Your task to perform on an android device: change notifications settings Image 0: 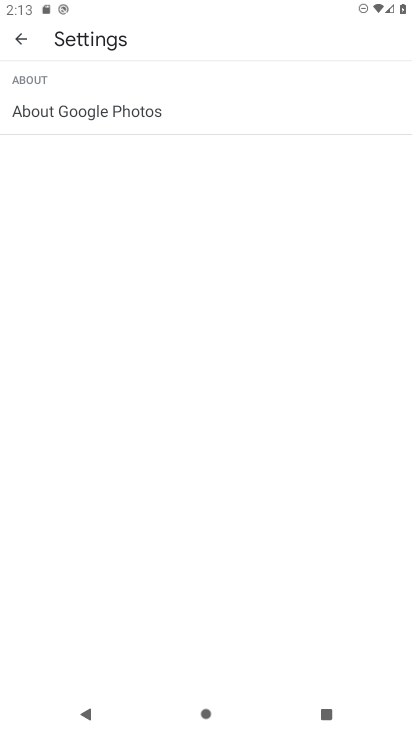
Step 0: press home button
Your task to perform on an android device: change notifications settings Image 1: 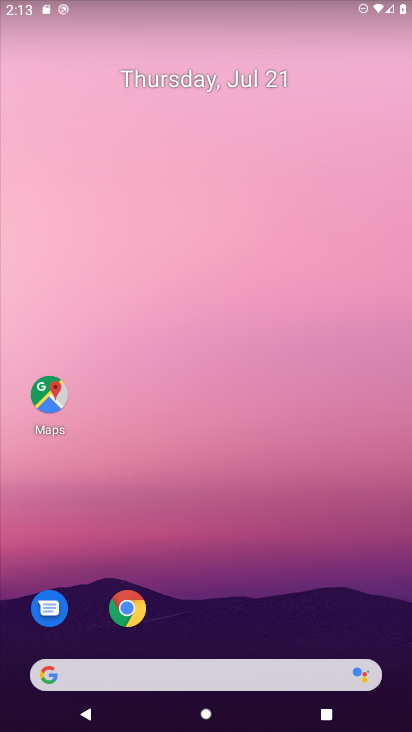
Step 1: drag from (241, 552) to (242, 115)
Your task to perform on an android device: change notifications settings Image 2: 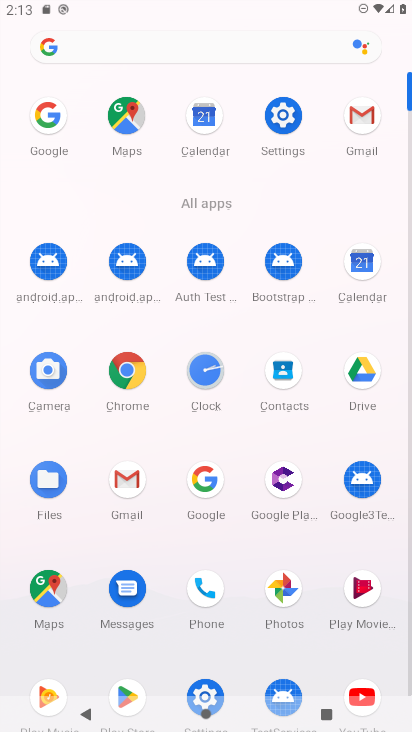
Step 2: click (278, 110)
Your task to perform on an android device: change notifications settings Image 3: 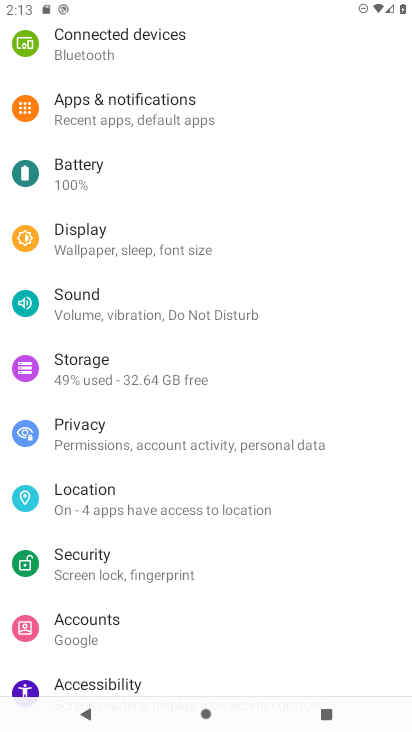
Step 3: click (171, 120)
Your task to perform on an android device: change notifications settings Image 4: 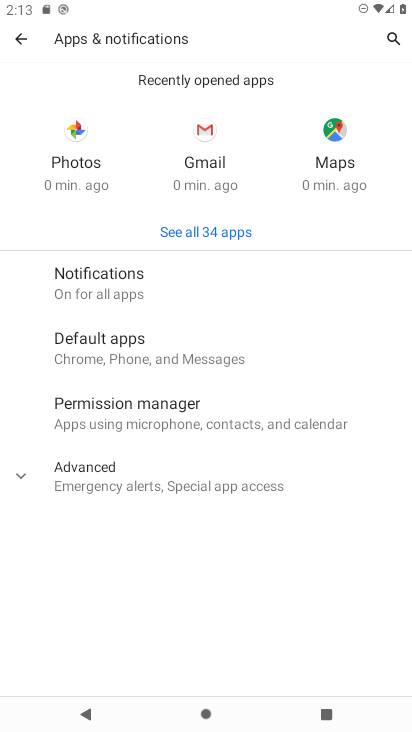
Step 4: click (122, 273)
Your task to perform on an android device: change notifications settings Image 5: 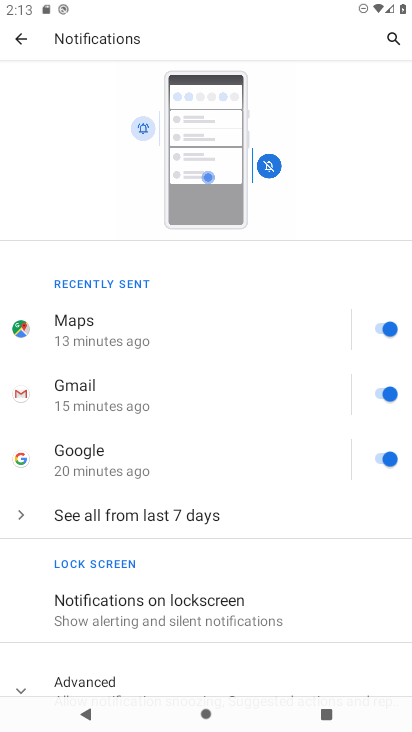
Step 5: task complete